Your task to perform on an android device: Open Youtube and go to "Your channel" Image 0: 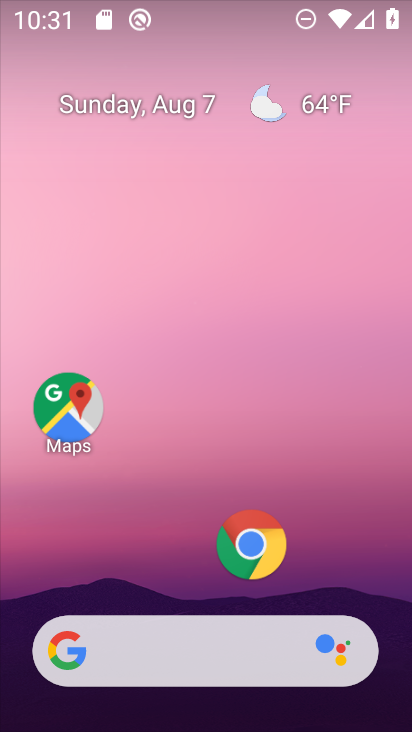
Step 0: drag from (210, 584) to (108, 8)
Your task to perform on an android device: Open Youtube and go to "Your channel" Image 1: 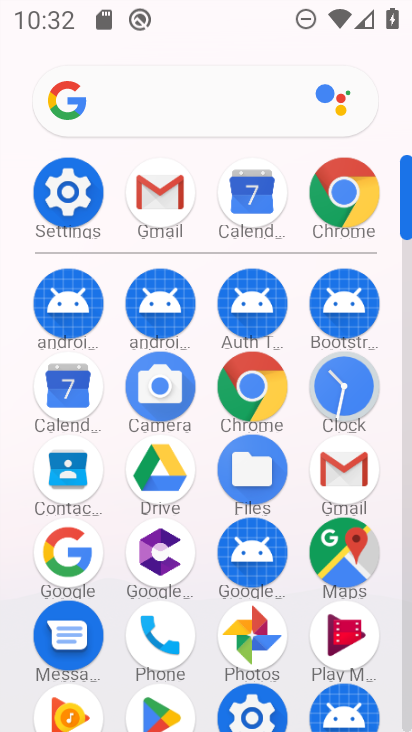
Step 1: drag from (205, 558) to (121, 84)
Your task to perform on an android device: Open Youtube and go to "Your channel" Image 2: 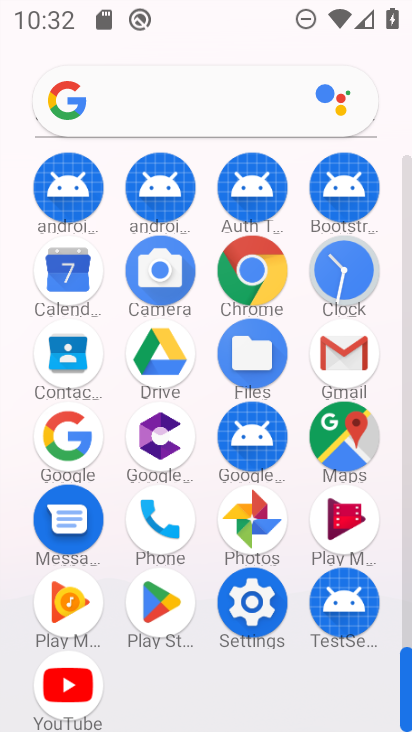
Step 2: click (78, 688)
Your task to perform on an android device: Open Youtube and go to "Your channel" Image 3: 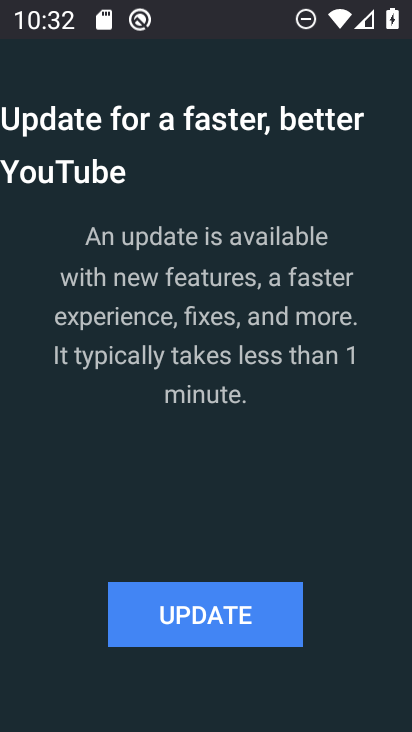
Step 3: click (178, 605)
Your task to perform on an android device: Open Youtube and go to "Your channel" Image 4: 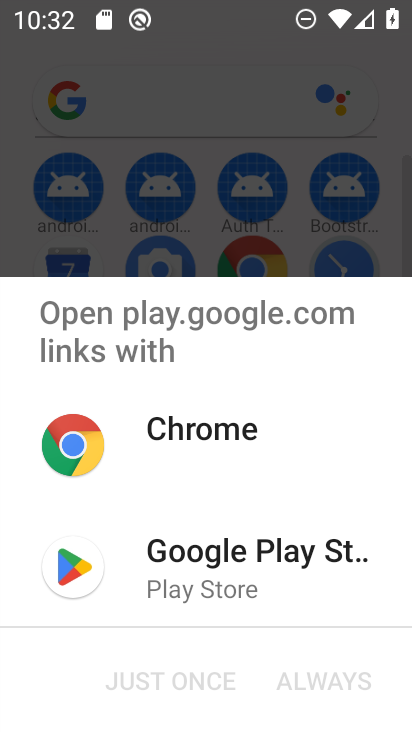
Step 4: click (246, 574)
Your task to perform on an android device: Open Youtube and go to "Your channel" Image 5: 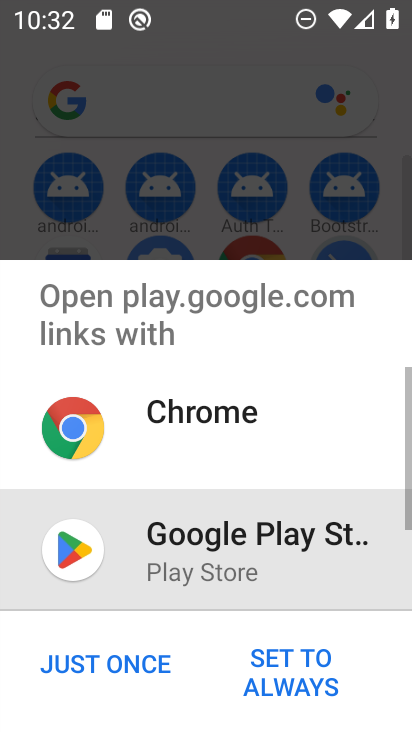
Step 5: click (130, 672)
Your task to perform on an android device: Open Youtube and go to "Your channel" Image 6: 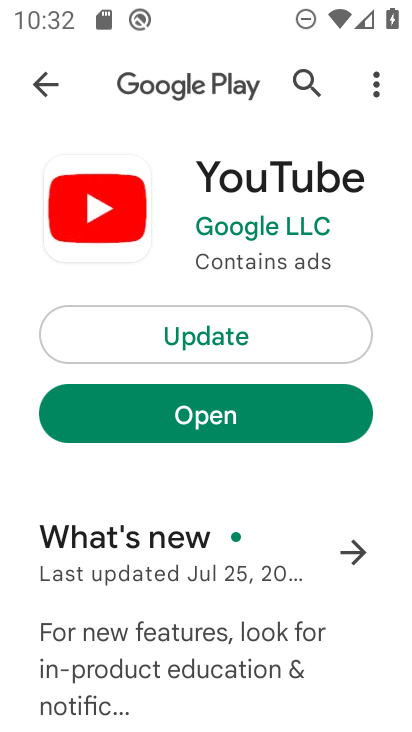
Step 6: click (207, 341)
Your task to perform on an android device: Open Youtube and go to "Your channel" Image 7: 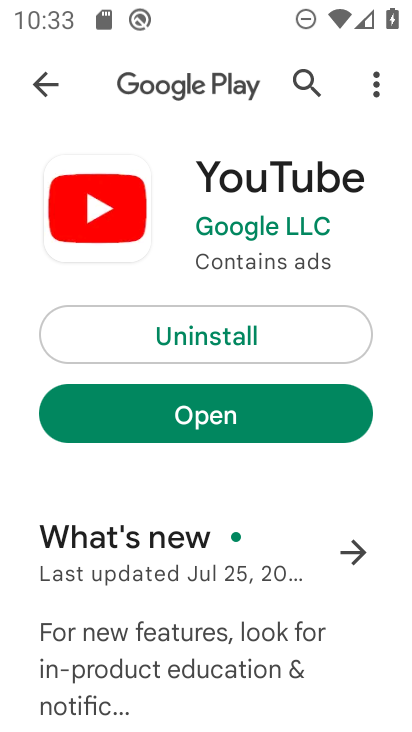
Step 7: click (302, 400)
Your task to perform on an android device: Open Youtube and go to "Your channel" Image 8: 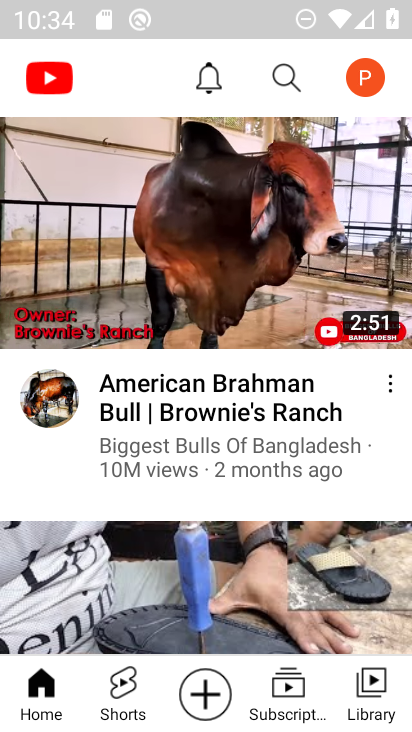
Step 8: click (370, 81)
Your task to perform on an android device: Open Youtube and go to "Your channel" Image 9: 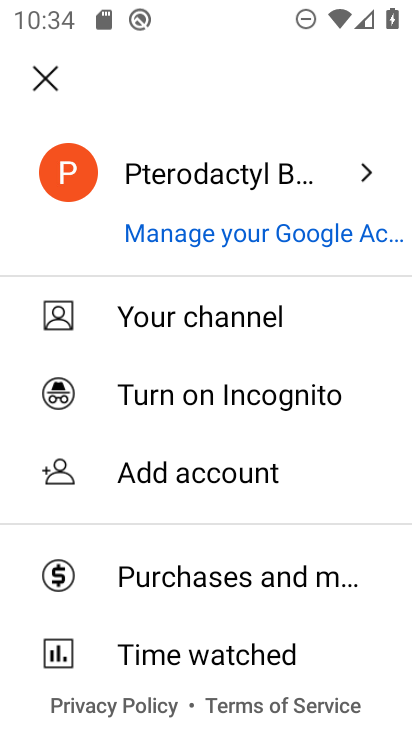
Step 9: click (193, 321)
Your task to perform on an android device: Open Youtube and go to "Your channel" Image 10: 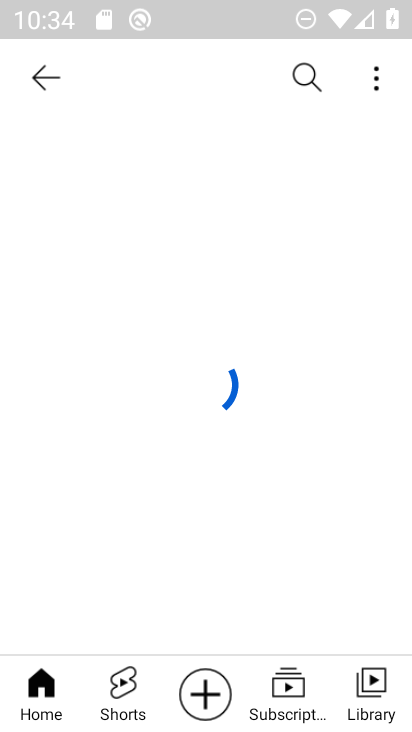
Step 10: task complete